Your task to perform on an android device: Open calendar and show me the second week of next month Image 0: 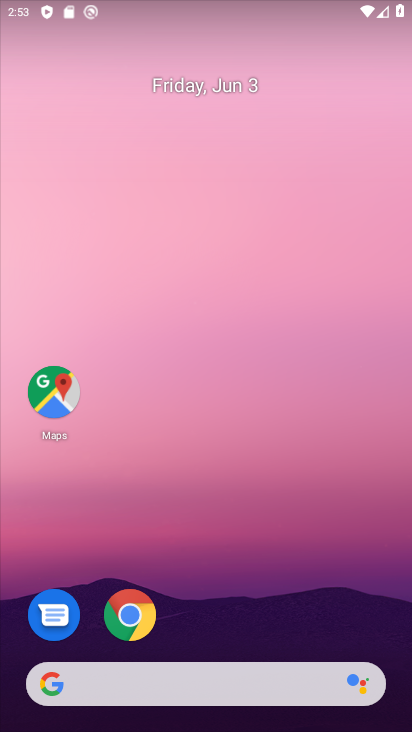
Step 0: drag from (209, 616) to (279, 198)
Your task to perform on an android device: Open calendar and show me the second week of next month Image 1: 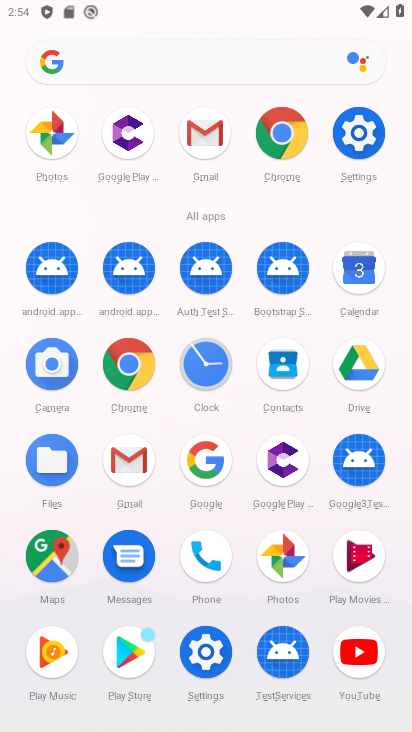
Step 1: click (358, 276)
Your task to perform on an android device: Open calendar and show me the second week of next month Image 2: 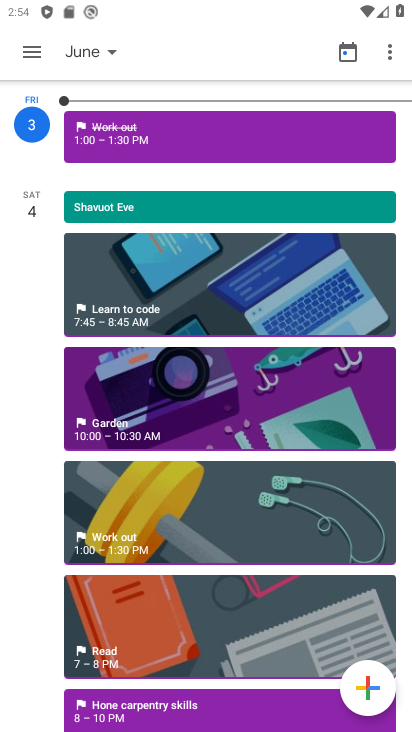
Step 2: click (107, 53)
Your task to perform on an android device: Open calendar and show me the second week of next month Image 3: 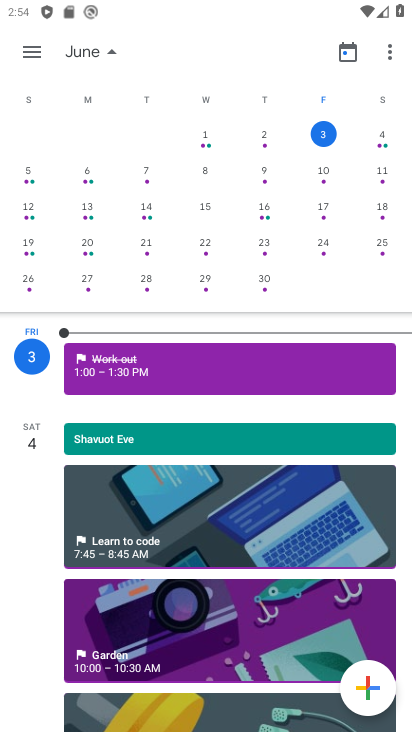
Step 3: drag from (391, 199) to (5, 183)
Your task to perform on an android device: Open calendar and show me the second week of next month Image 4: 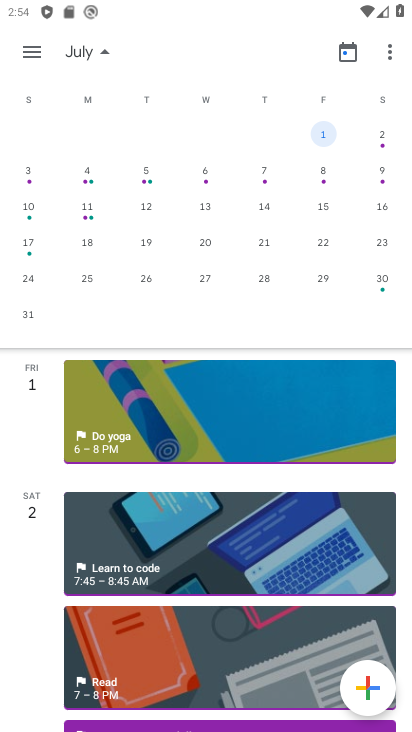
Step 4: click (34, 172)
Your task to perform on an android device: Open calendar and show me the second week of next month Image 5: 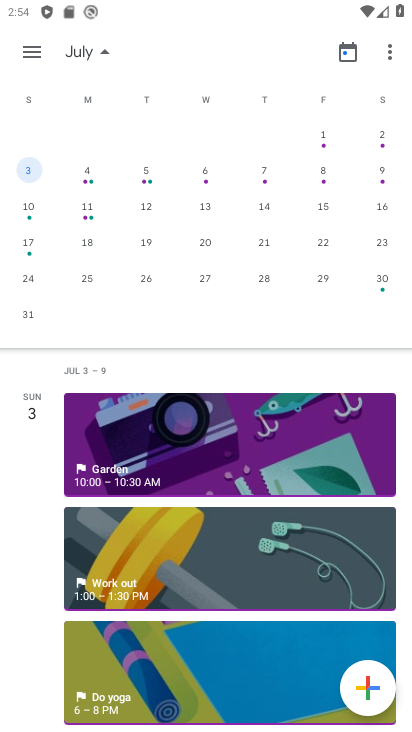
Step 5: click (91, 171)
Your task to perform on an android device: Open calendar and show me the second week of next month Image 6: 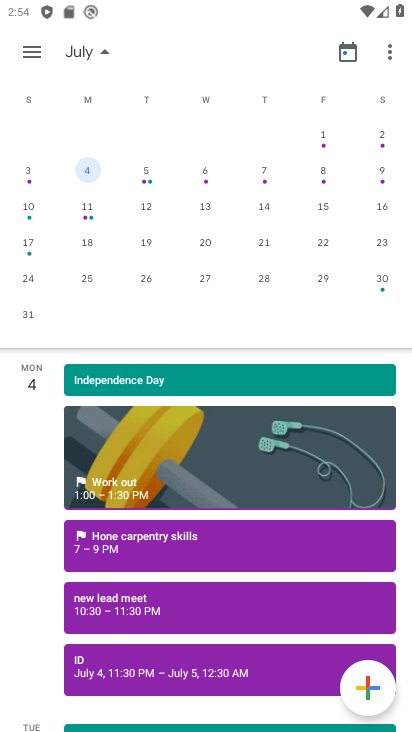
Step 6: click (146, 174)
Your task to perform on an android device: Open calendar and show me the second week of next month Image 7: 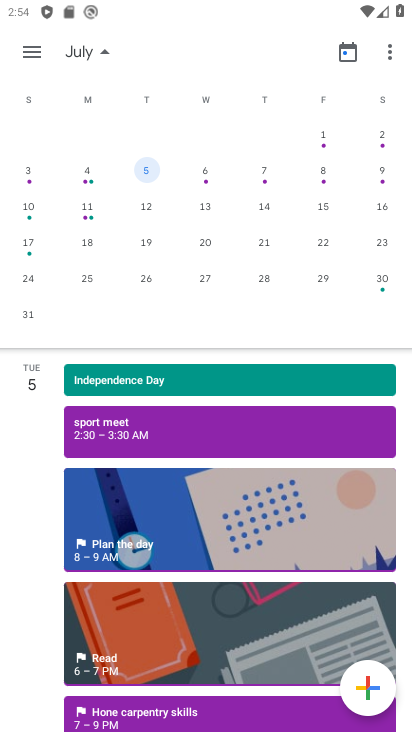
Step 7: click (205, 173)
Your task to perform on an android device: Open calendar and show me the second week of next month Image 8: 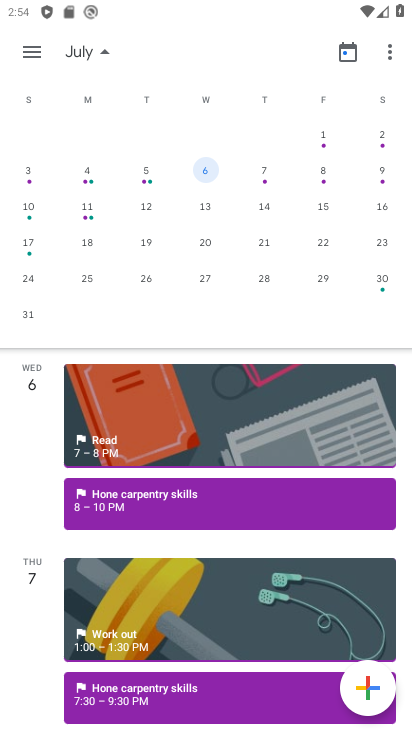
Step 8: click (261, 176)
Your task to perform on an android device: Open calendar and show me the second week of next month Image 9: 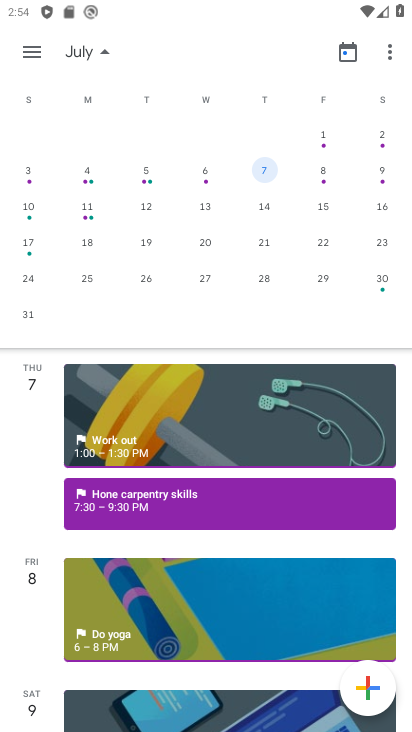
Step 9: click (319, 173)
Your task to perform on an android device: Open calendar and show me the second week of next month Image 10: 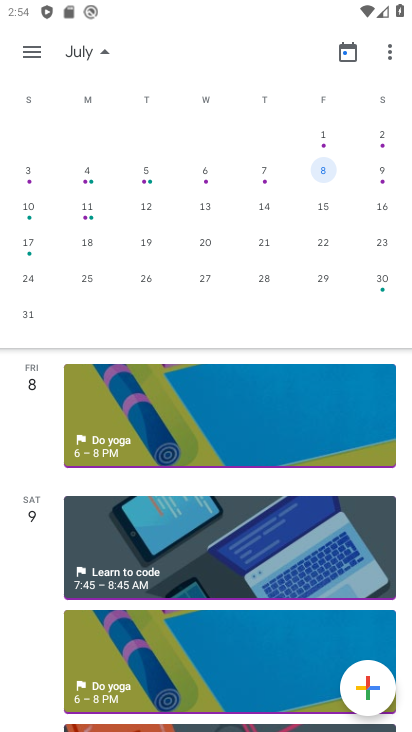
Step 10: click (378, 170)
Your task to perform on an android device: Open calendar and show me the second week of next month Image 11: 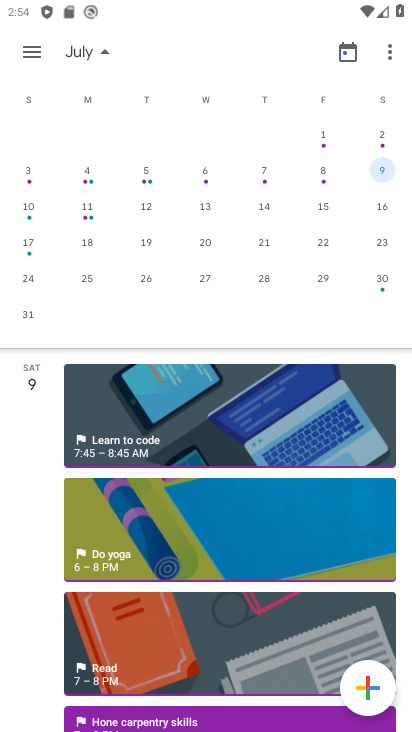
Step 11: task complete